Your task to perform on an android device: Open eBay Image 0: 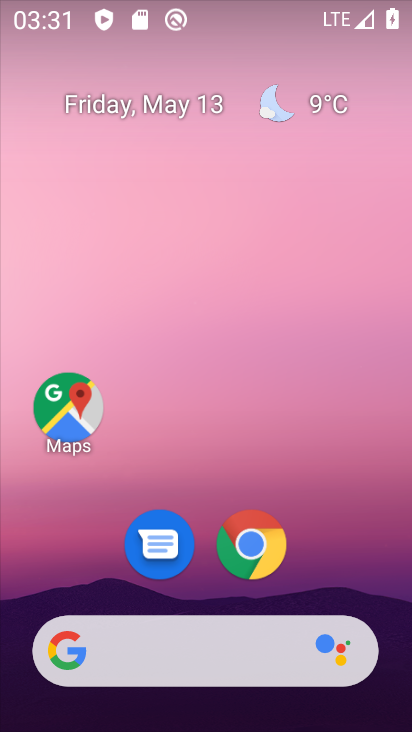
Step 0: drag from (340, 530) to (278, 50)
Your task to perform on an android device: Open eBay Image 1: 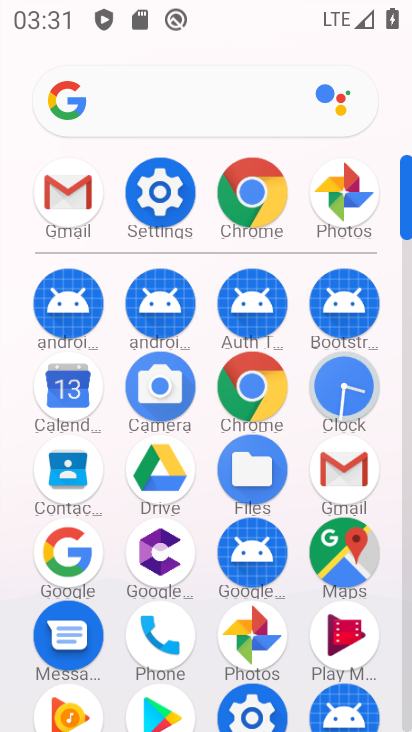
Step 1: drag from (13, 482) to (36, 254)
Your task to perform on an android device: Open eBay Image 2: 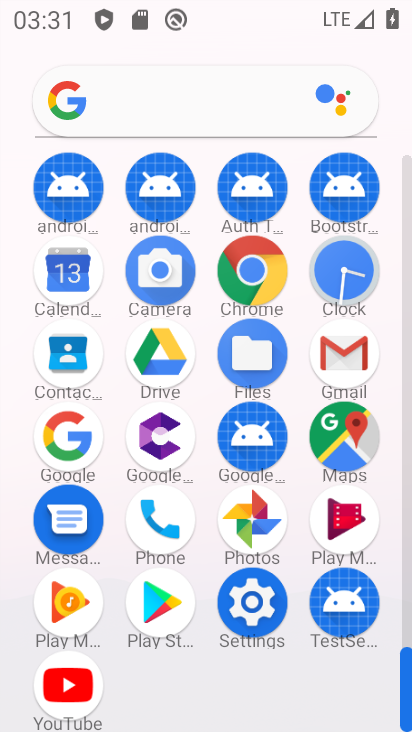
Step 2: click (248, 264)
Your task to perform on an android device: Open eBay Image 3: 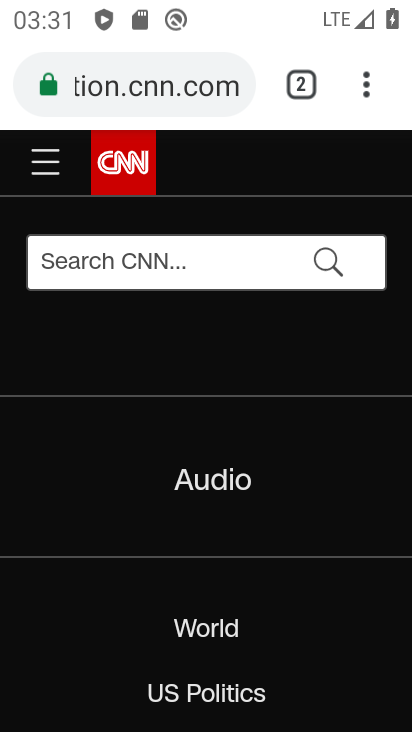
Step 3: click (138, 83)
Your task to perform on an android device: Open eBay Image 4: 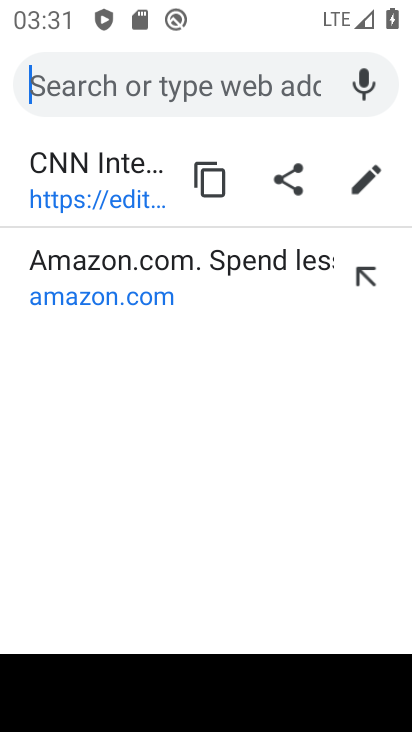
Step 4: type "eBay"
Your task to perform on an android device: Open eBay Image 5: 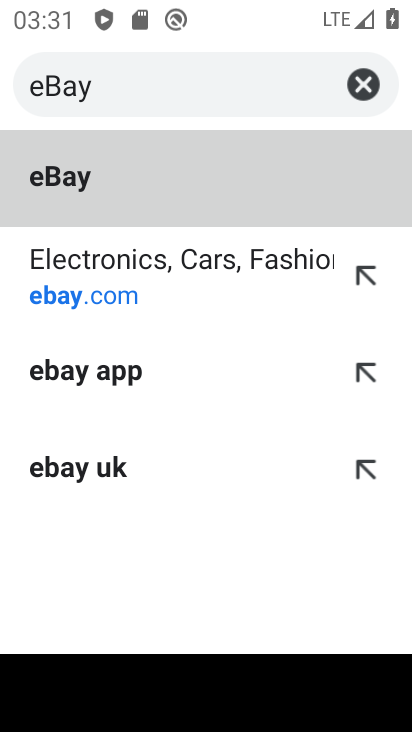
Step 5: click (141, 276)
Your task to perform on an android device: Open eBay Image 6: 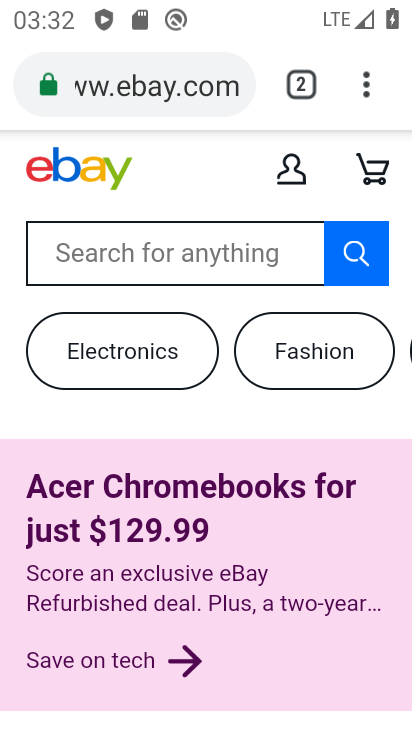
Step 6: task complete